Your task to perform on an android device: show emergency info Image 0: 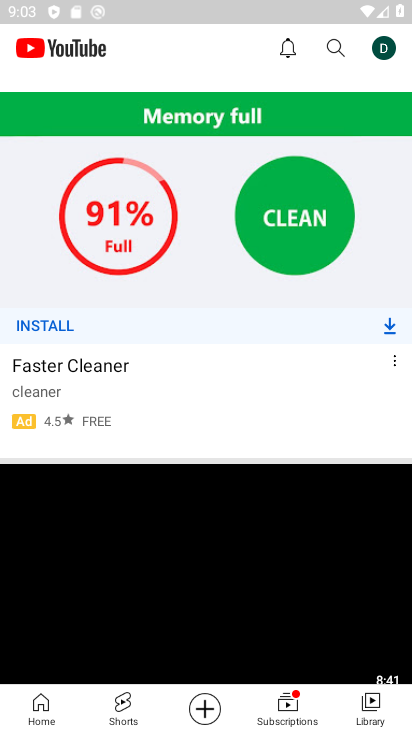
Step 0: press home button
Your task to perform on an android device: show emergency info Image 1: 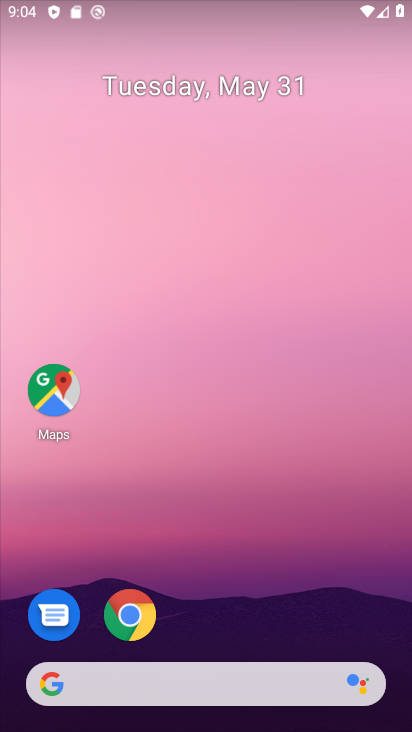
Step 1: drag from (262, 634) to (223, 91)
Your task to perform on an android device: show emergency info Image 2: 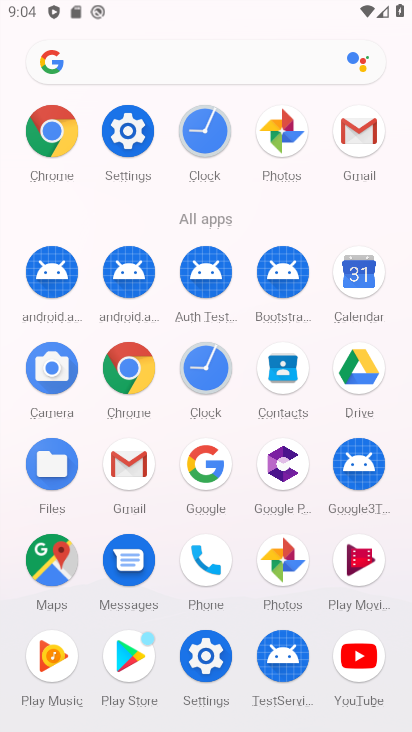
Step 2: click (142, 130)
Your task to perform on an android device: show emergency info Image 3: 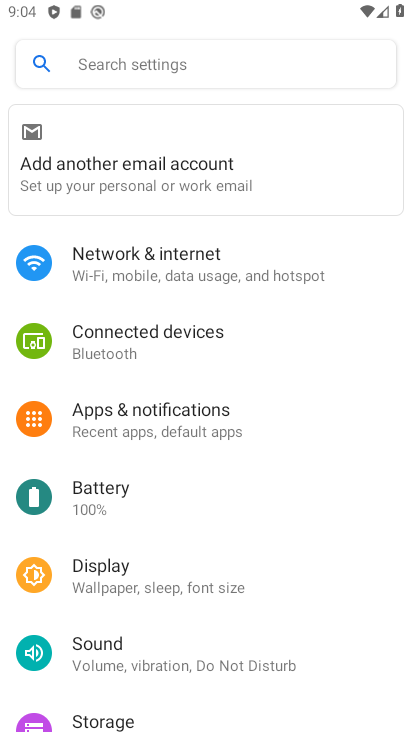
Step 3: drag from (381, 686) to (365, 4)
Your task to perform on an android device: show emergency info Image 4: 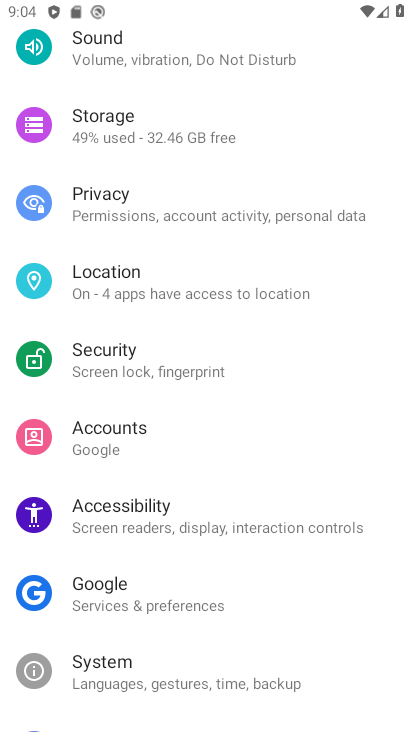
Step 4: drag from (298, 706) to (283, 258)
Your task to perform on an android device: show emergency info Image 5: 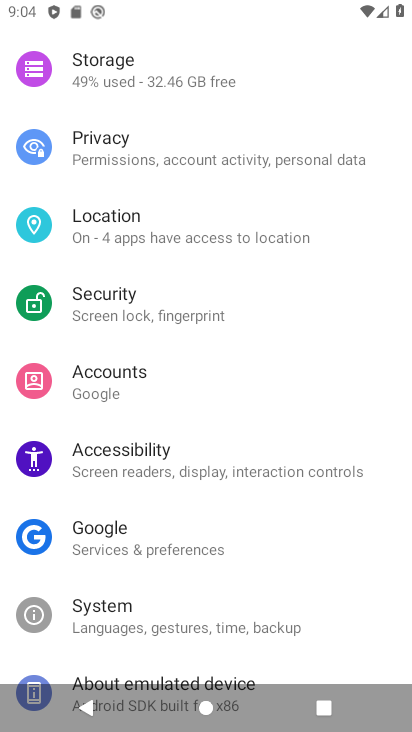
Step 5: click (211, 680)
Your task to perform on an android device: show emergency info Image 6: 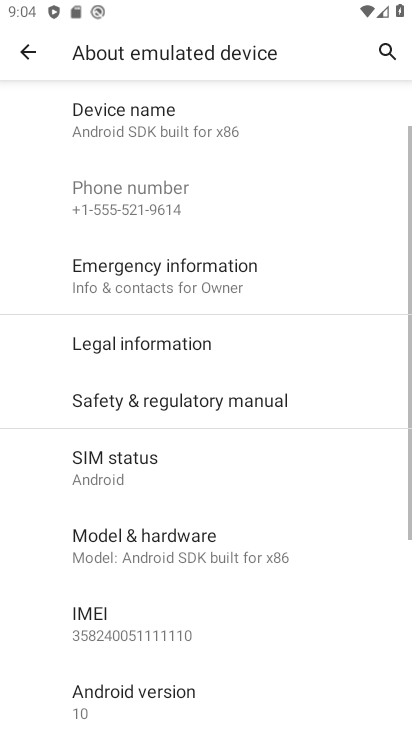
Step 6: click (188, 281)
Your task to perform on an android device: show emergency info Image 7: 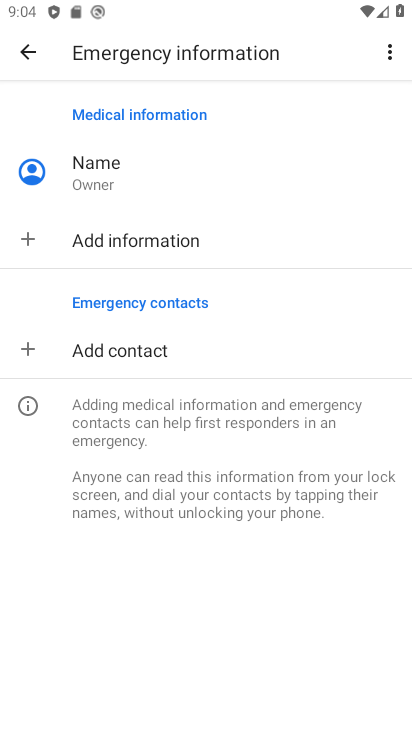
Step 7: click (387, 54)
Your task to perform on an android device: show emergency info Image 8: 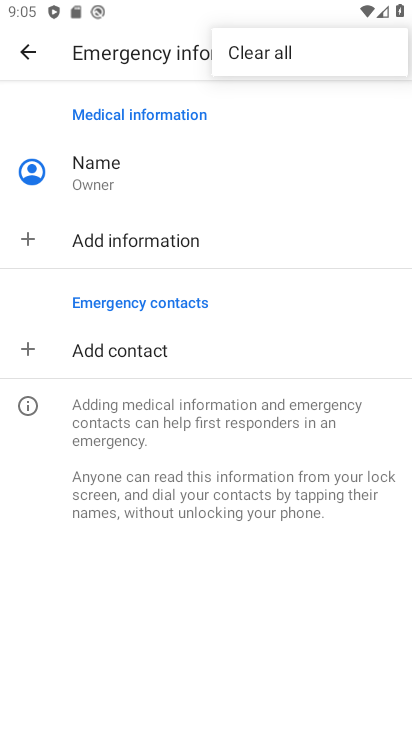
Step 8: task complete